Your task to perform on an android device: Clear the cart on bestbuy.com. Add razer thresher to the cart on bestbuy.com, then select checkout. Image 0: 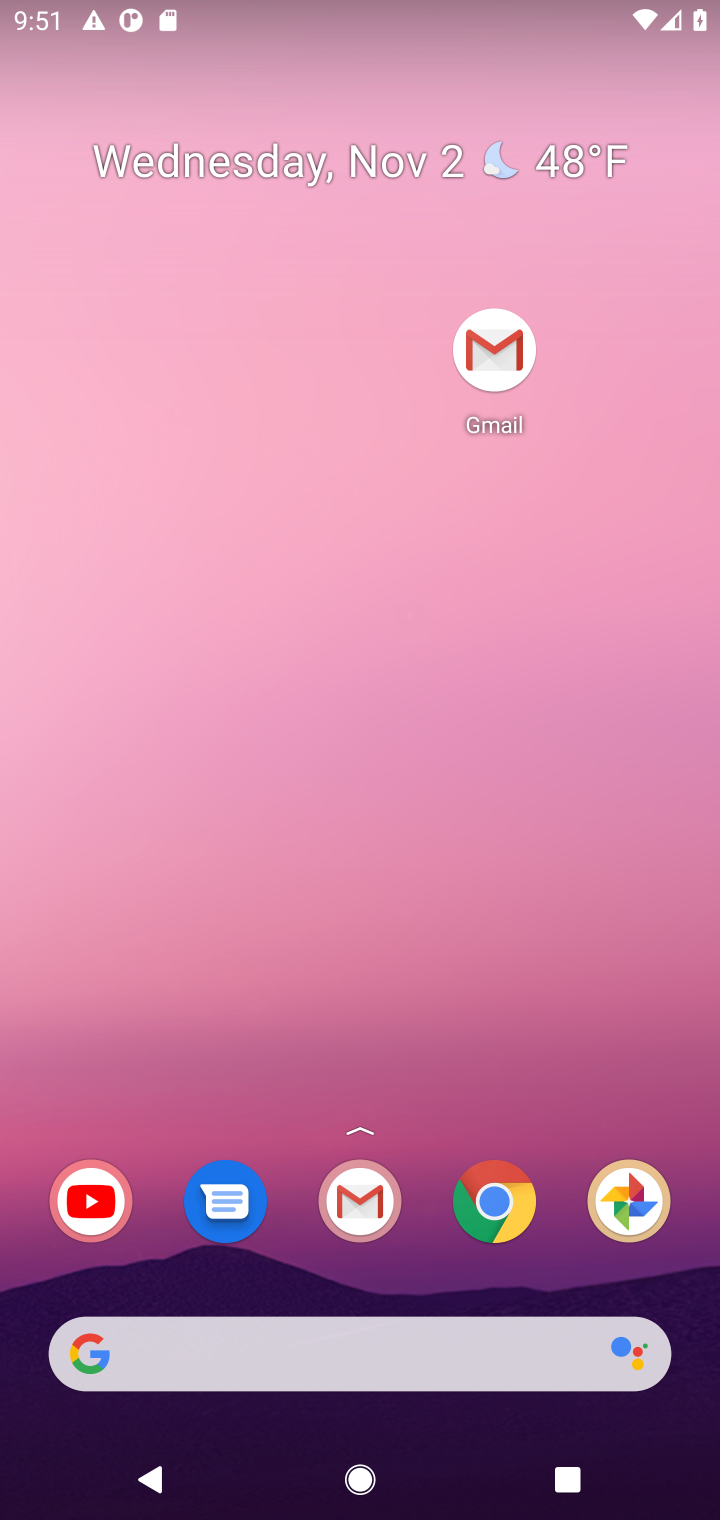
Step 0: drag from (436, 1249) to (461, 168)
Your task to perform on an android device: Clear the cart on bestbuy.com. Add razer thresher to the cart on bestbuy.com, then select checkout. Image 1: 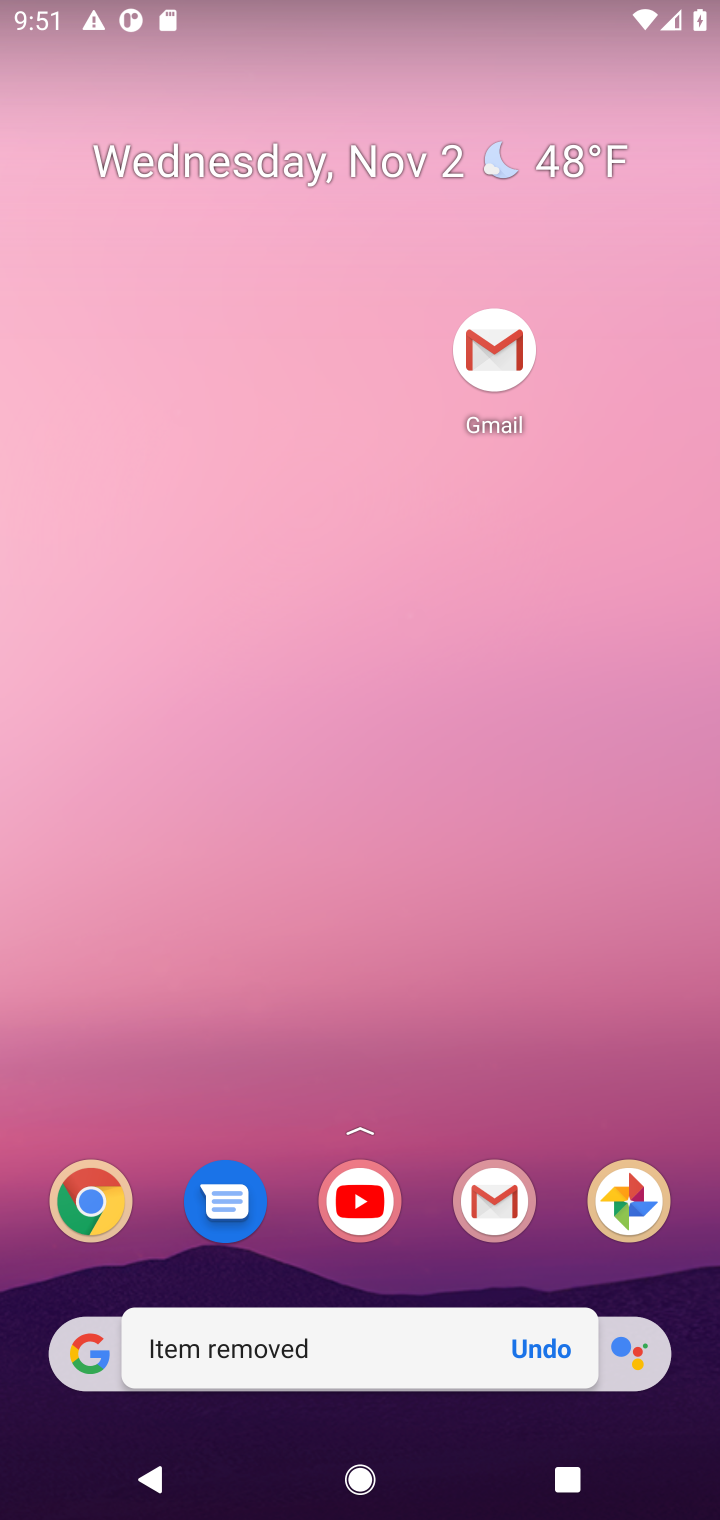
Step 1: drag from (418, 1195) to (326, 223)
Your task to perform on an android device: Clear the cart on bestbuy.com. Add razer thresher to the cart on bestbuy.com, then select checkout. Image 2: 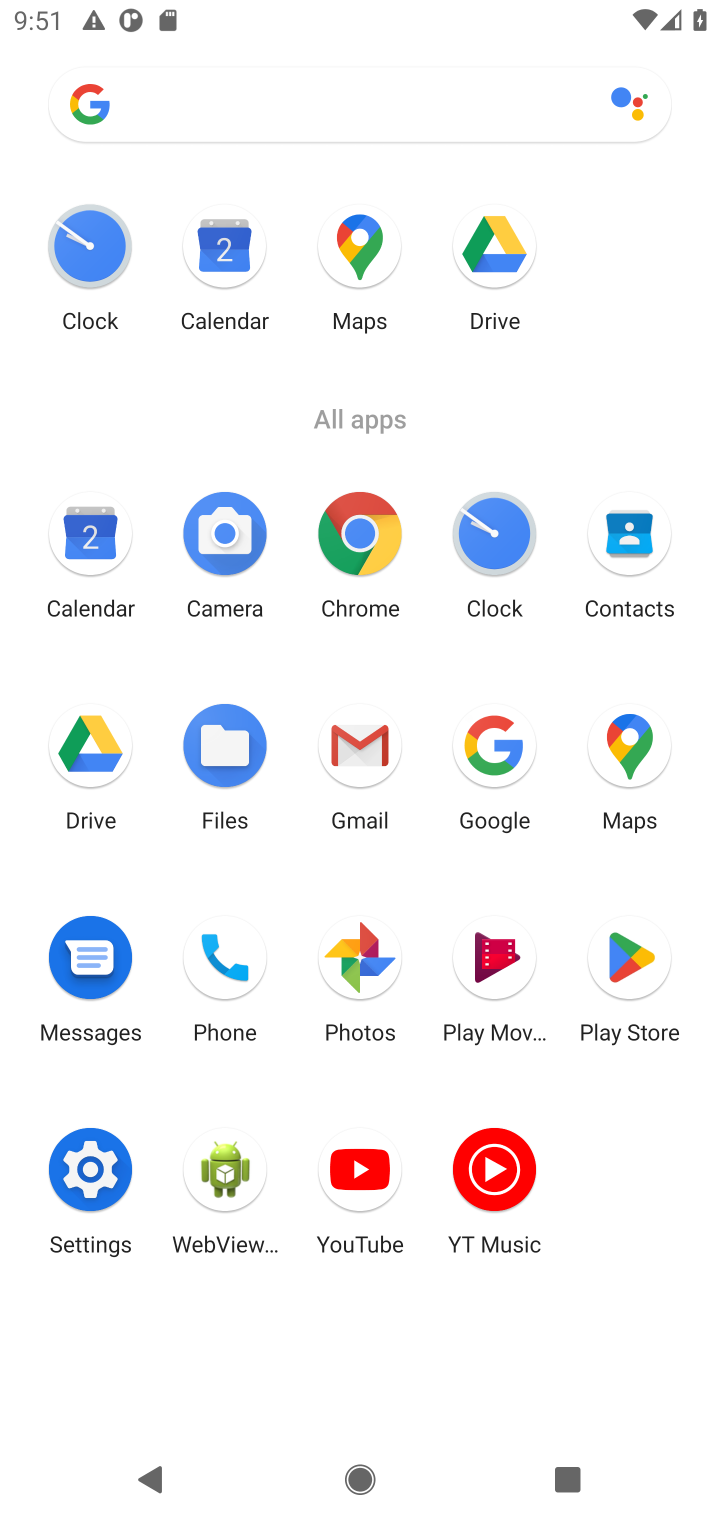
Step 2: click (361, 546)
Your task to perform on an android device: Clear the cart on bestbuy.com. Add razer thresher to the cart on bestbuy.com, then select checkout. Image 3: 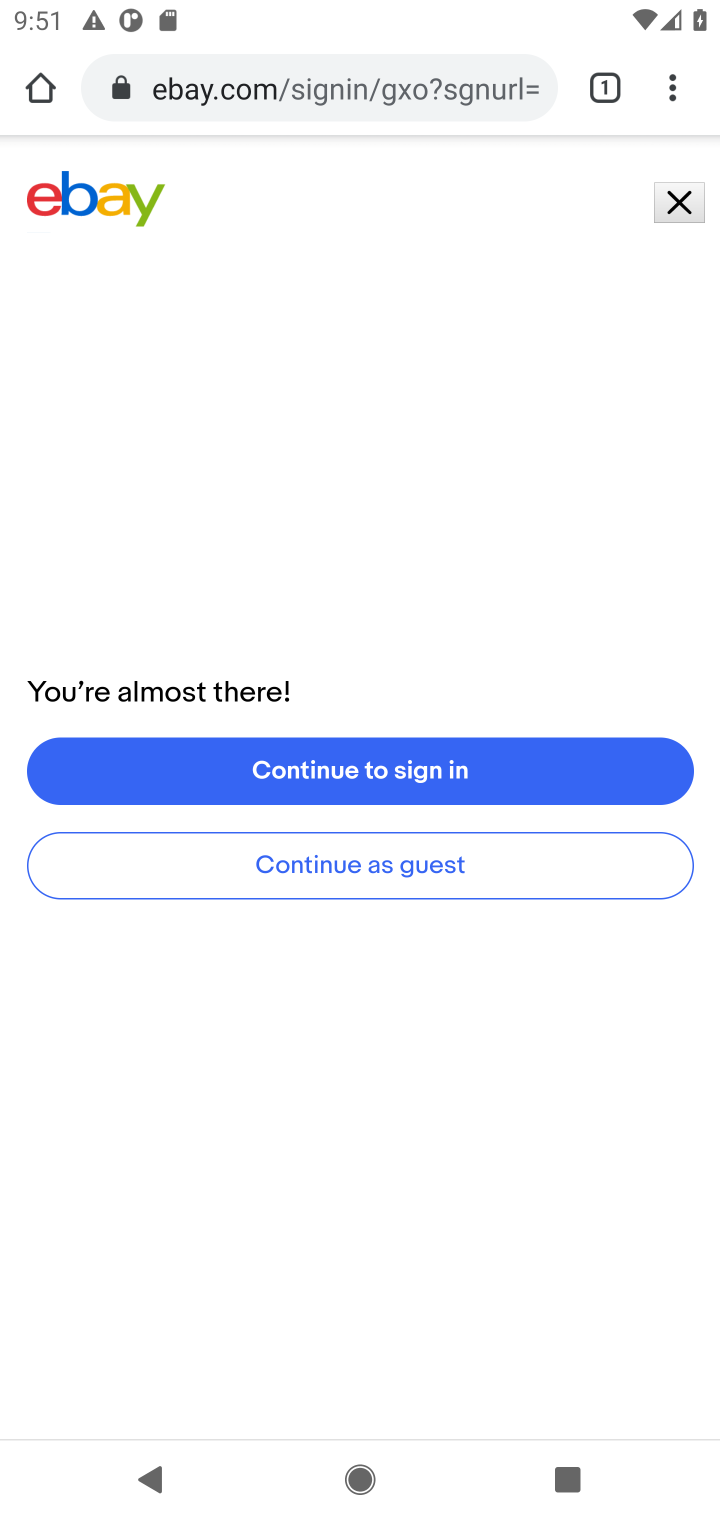
Step 3: click (290, 88)
Your task to perform on an android device: Clear the cart on bestbuy.com. Add razer thresher to the cart on bestbuy.com, then select checkout. Image 4: 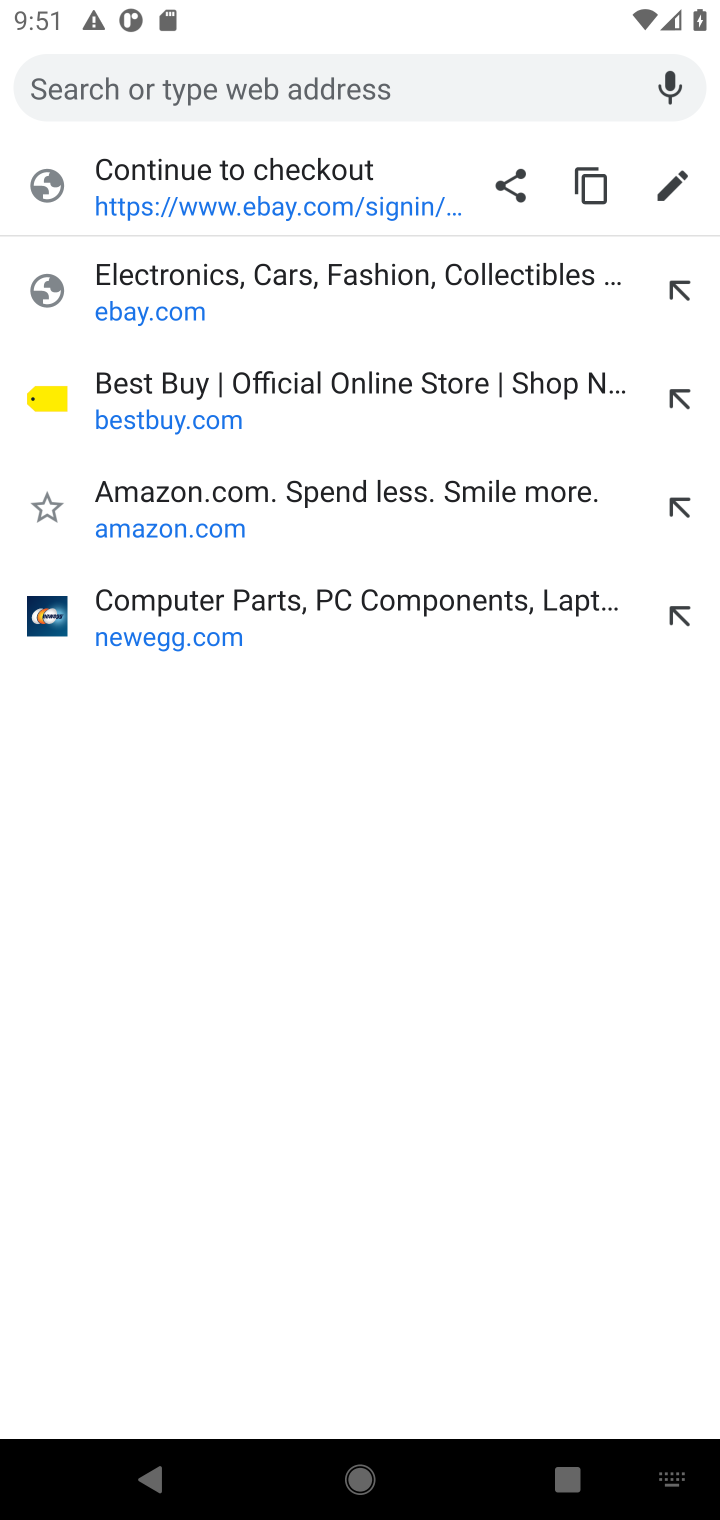
Step 4: type "bestbuy.com"
Your task to perform on an android device: Clear the cart on bestbuy.com. Add razer thresher to the cart on bestbuy.com, then select checkout. Image 5: 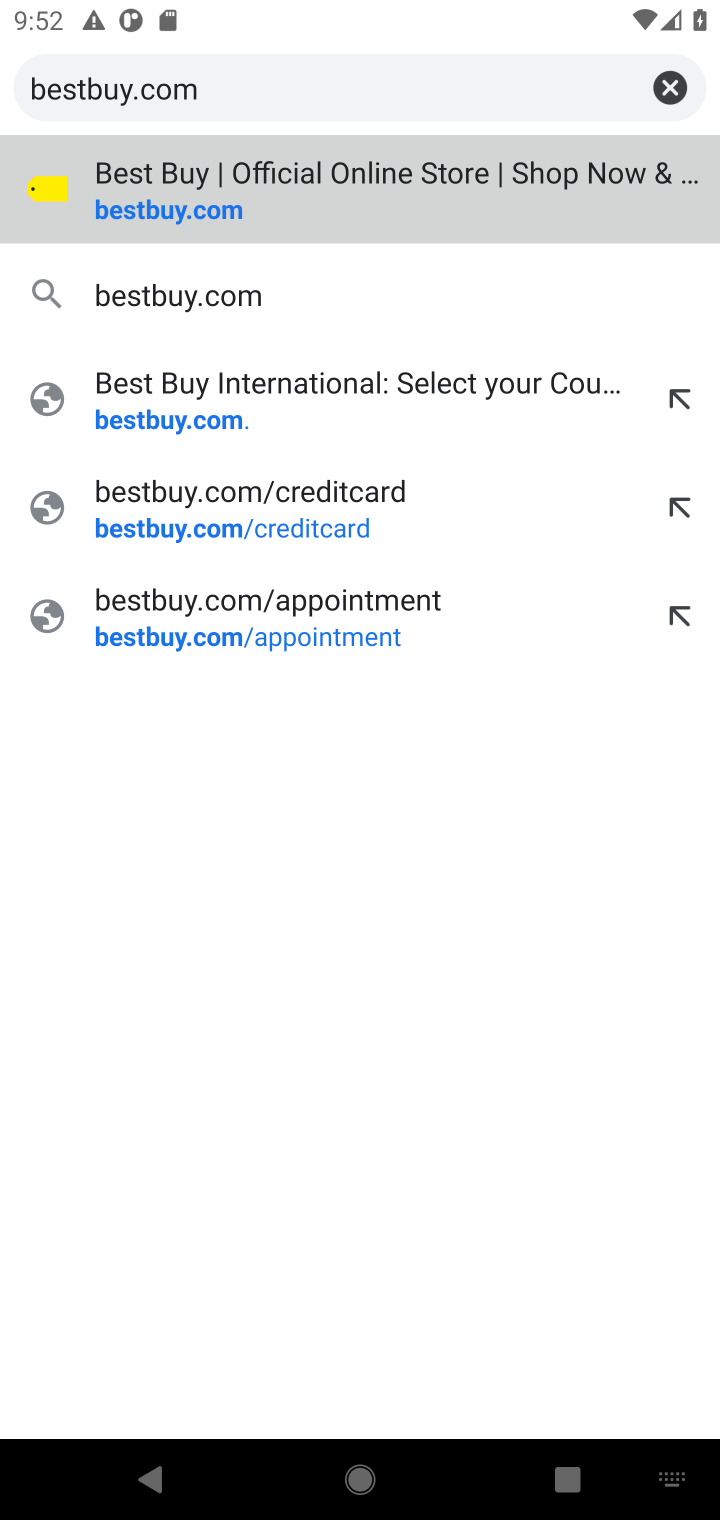
Step 5: press enter
Your task to perform on an android device: Clear the cart on bestbuy.com. Add razer thresher to the cart on bestbuy.com, then select checkout. Image 6: 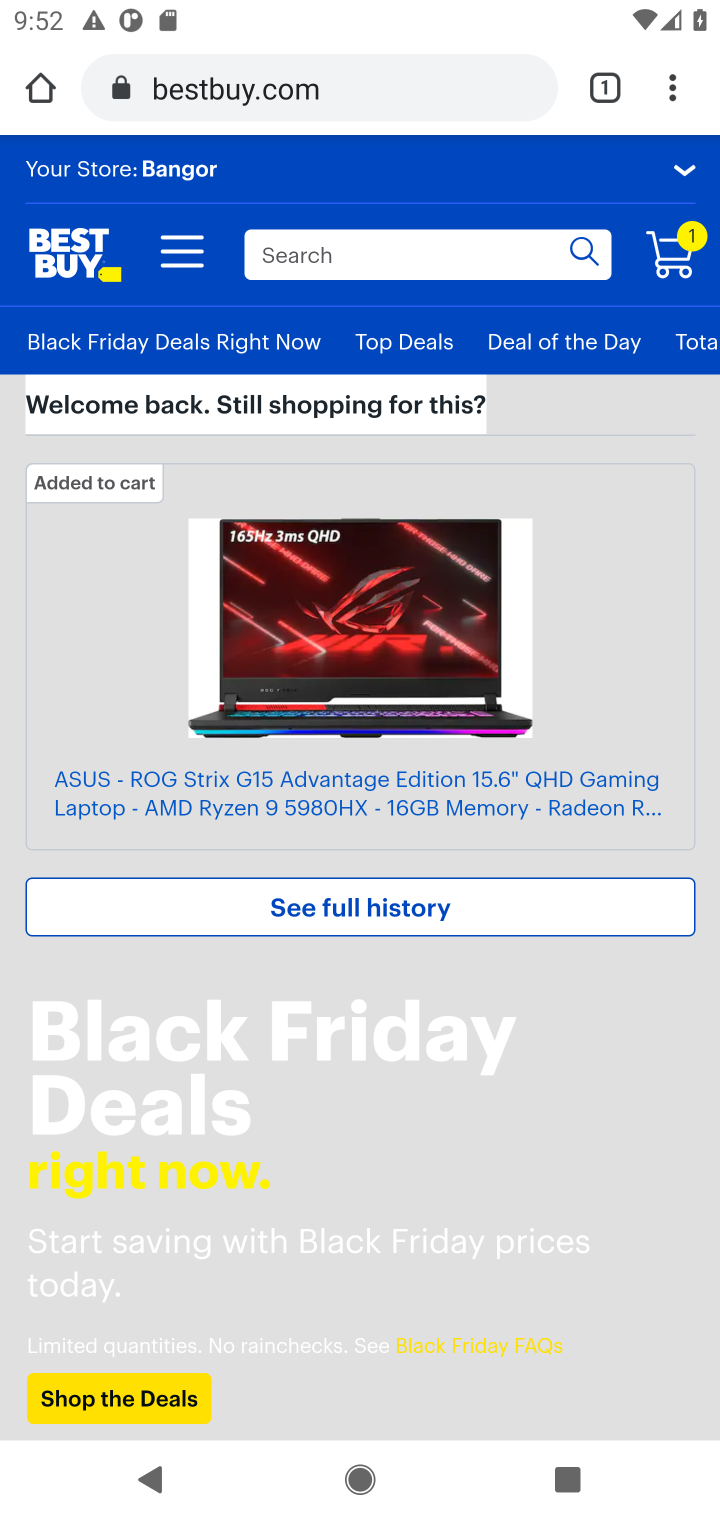
Step 6: click (520, 246)
Your task to perform on an android device: Clear the cart on bestbuy.com. Add razer thresher to the cart on bestbuy.com, then select checkout. Image 7: 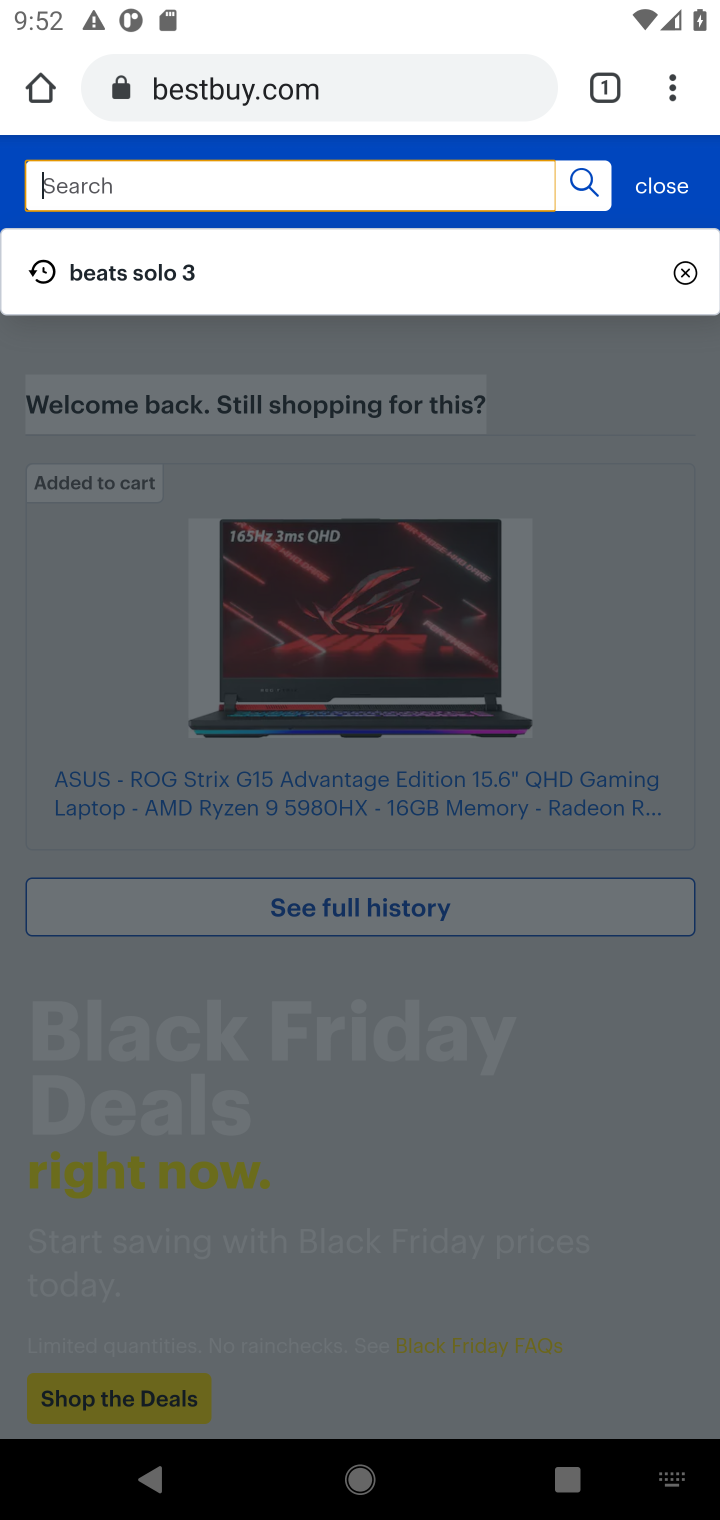
Step 7: click (696, 184)
Your task to perform on an android device: Clear the cart on bestbuy.com. Add razer thresher to the cart on bestbuy.com, then select checkout. Image 8: 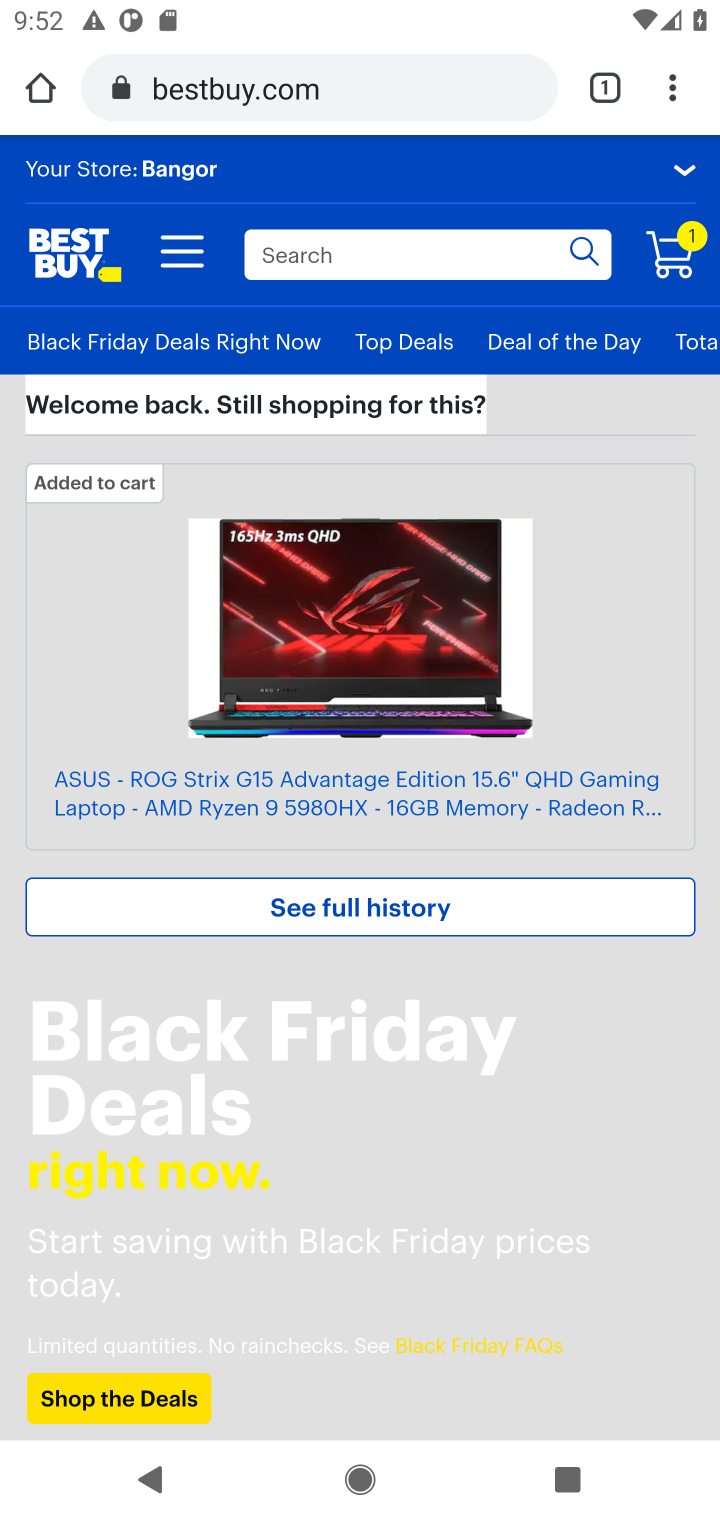
Step 8: click (672, 249)
Your task to perform on an android device: Clear the cart on bestbuy.com. Add razer thresher to the cart on bestbuy.com, then select checkout. Image 9: 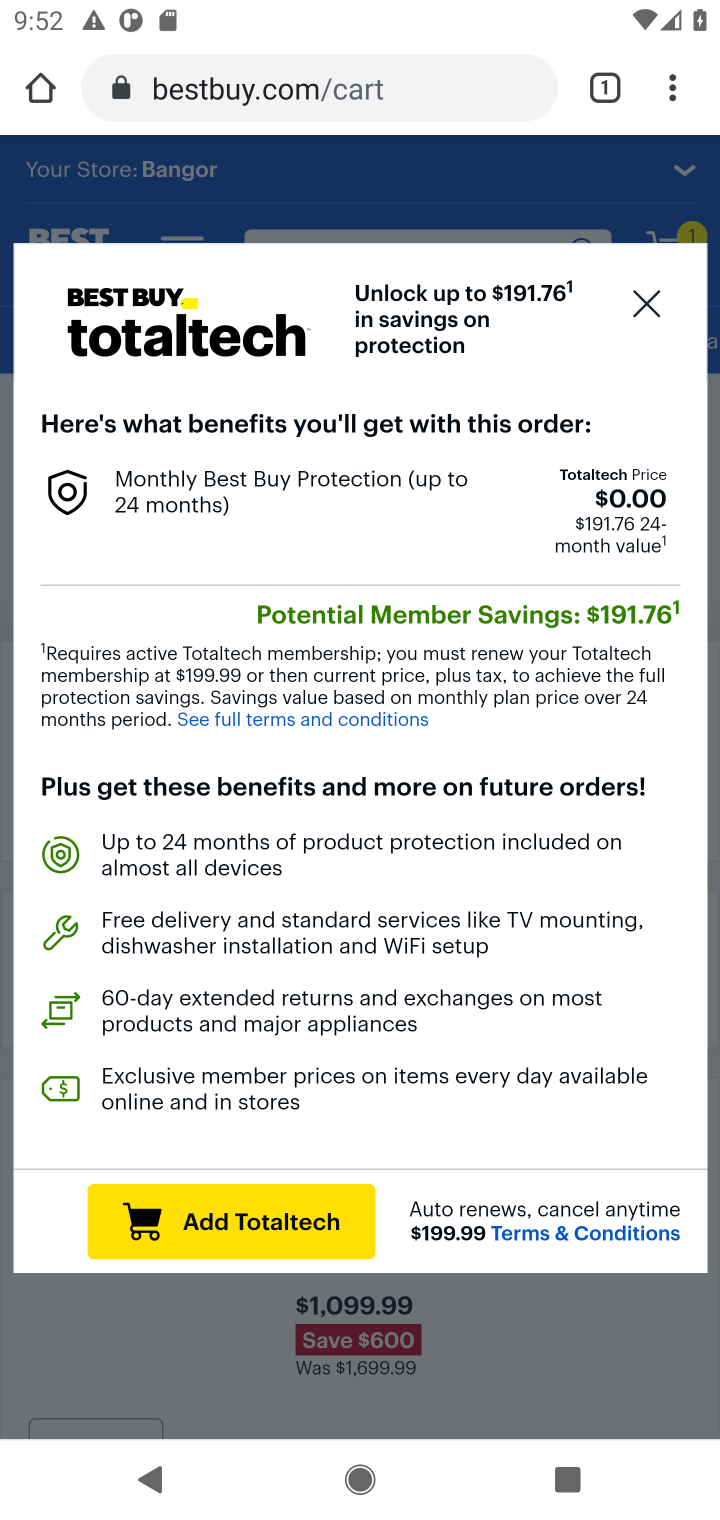
Step 9: click (647, 290)
Your task to perform on an android device: Clear the cart on bestbuy.com. Add razer thresher to the cart on bestbuy.com, then select checkout. Image 10: 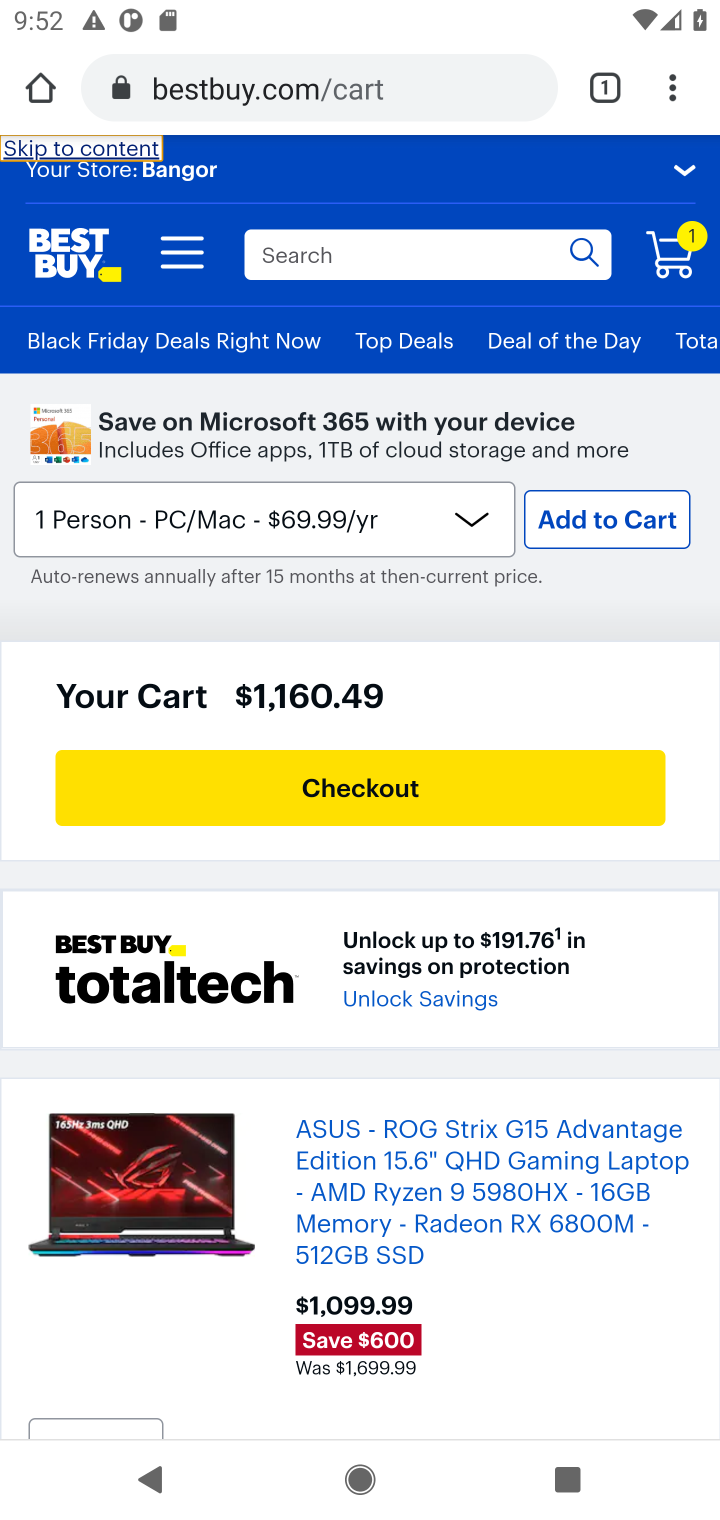
Step 10: drag from (449, 1064) to (416, 347)
Your task to perform on an android device: Clear the cart on bestbuy.com. Add razer thresher to the cart on bestbuy.com, then select checkout. Image 11: 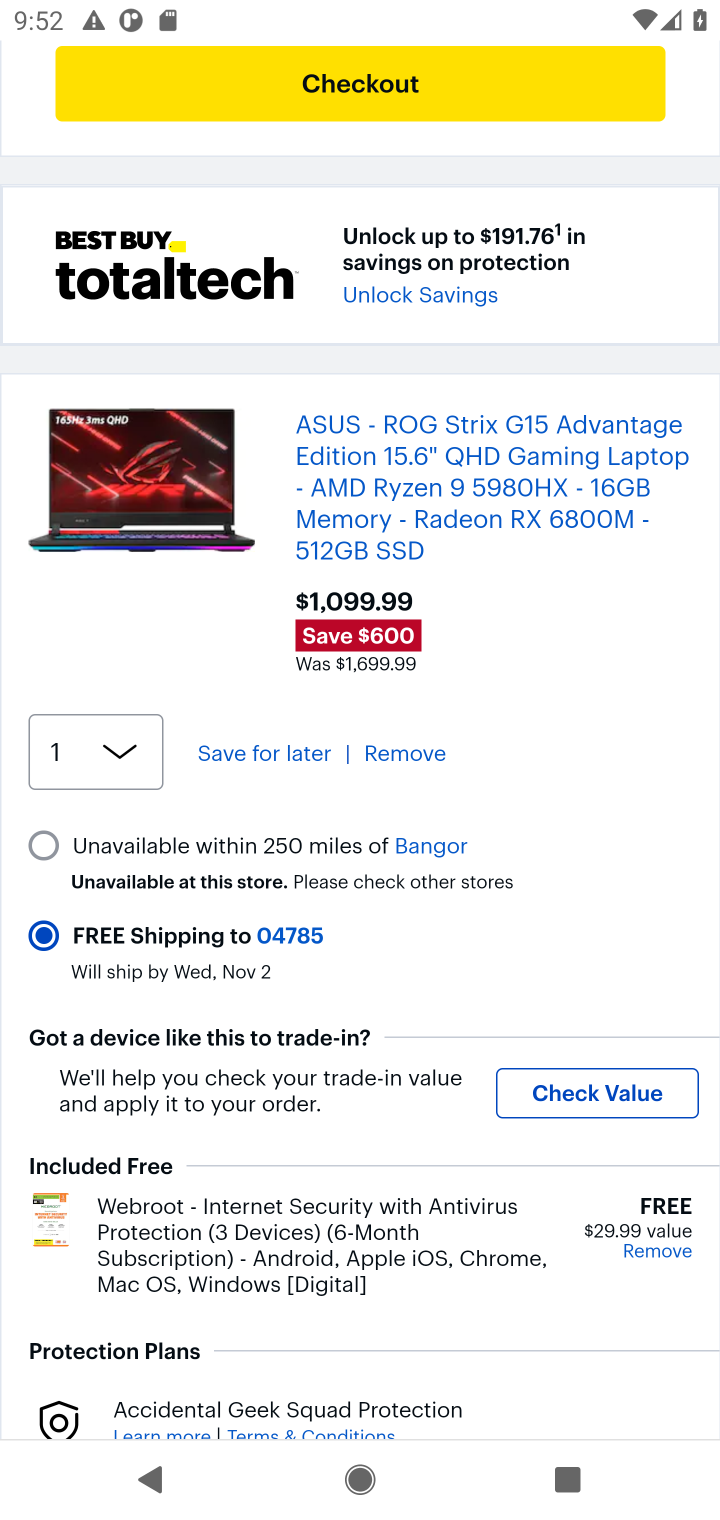
Step 11: click (415, 743)
Your task to perform on an android device: Clear the cart on bestbuy.com. Add razer thresher to the cart on bestbuy.com, then select checkout. Image 12: 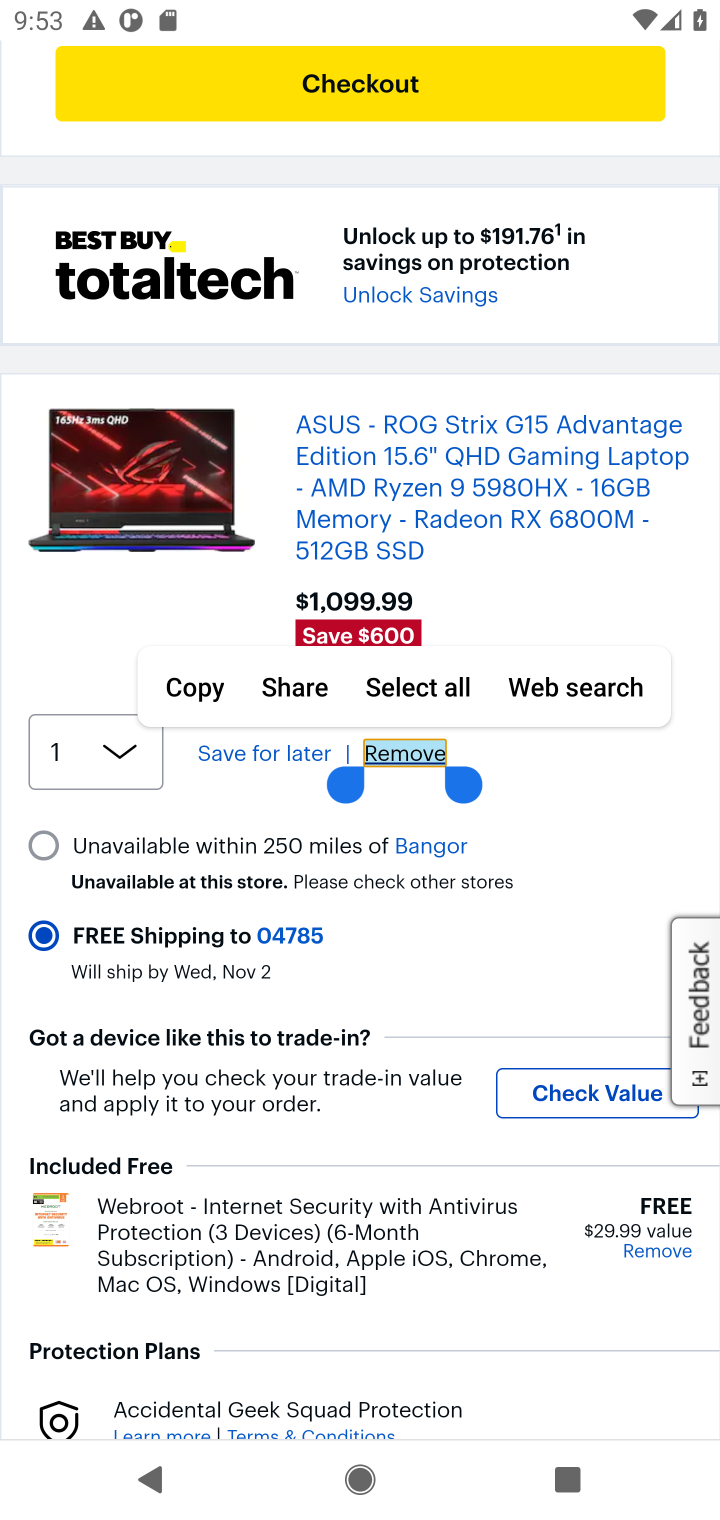
Step 12: click (406, 748)
Your task to perform on an android device: Clear the cart on bestbuy.com. Add razer thresher to the cart on bestbuy.com, then select checkout. Image 13: 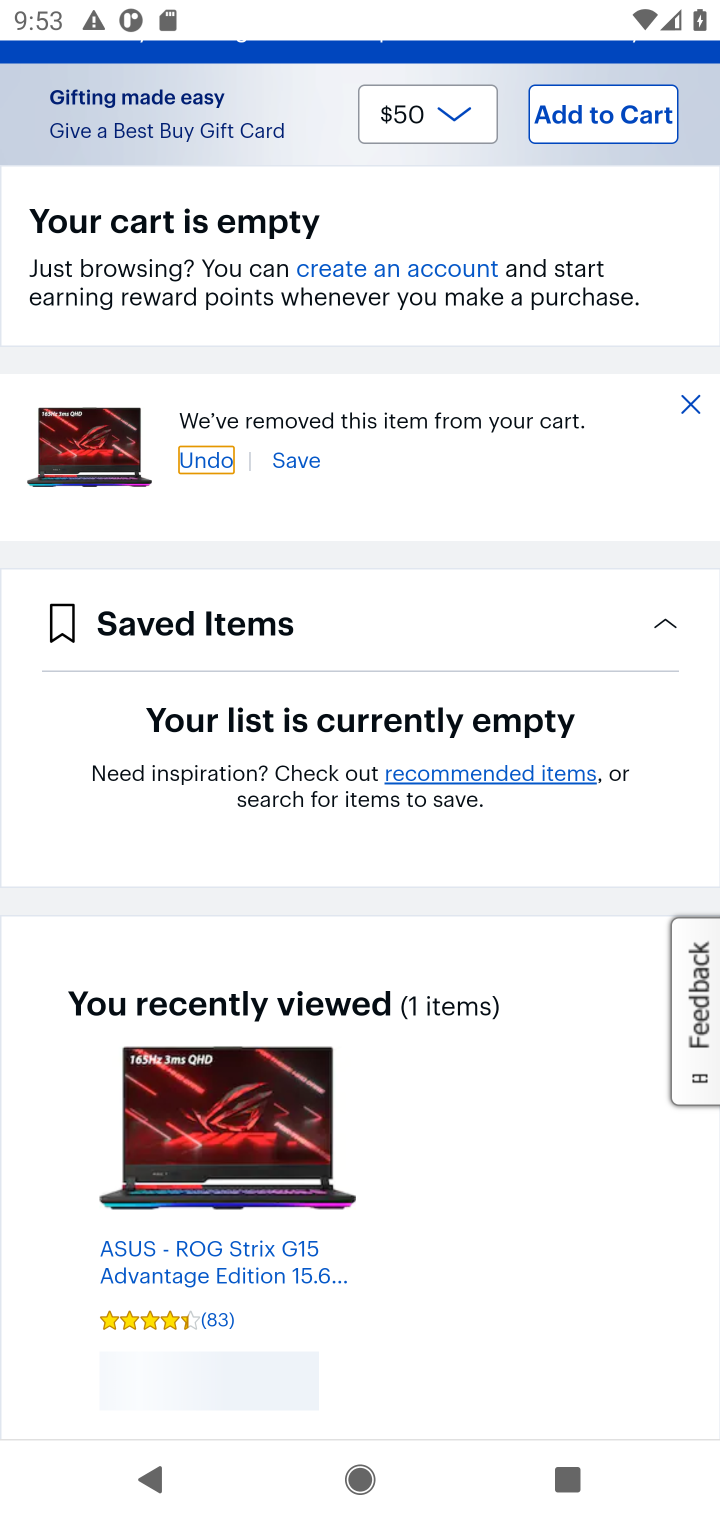
Step 13: drag from (525, 293) to (591, 1201)
Your task to perform on an android device: Clear the cart on bestbuy.com. Add razer thresher to the cart on bestbuy.com, then select checkout. Image 14: 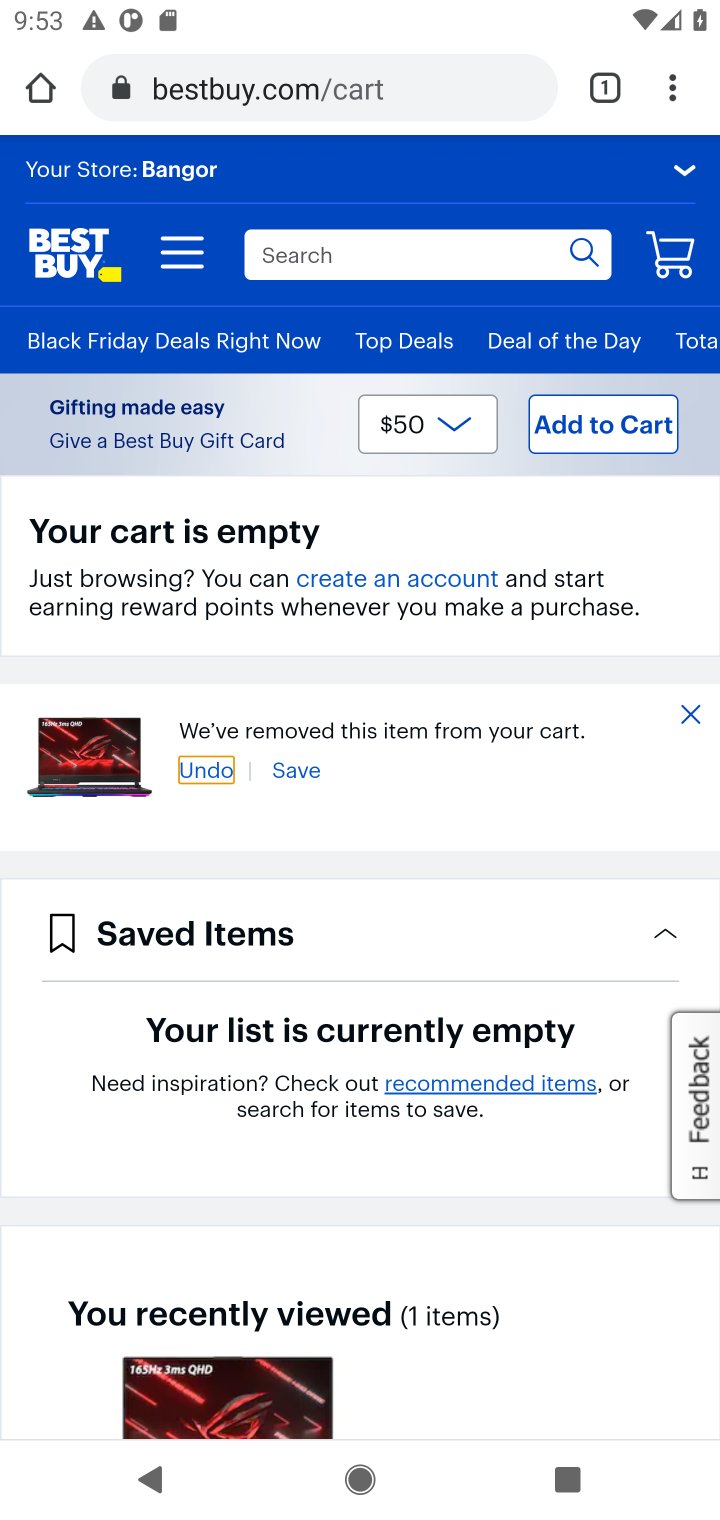
Step 14: click (448, 257)
Your task to perform on an android device: Clear the cart on bestbuy.com. Add razer thresher to the cart on bestbuy.com, then select checkout. Image 15: 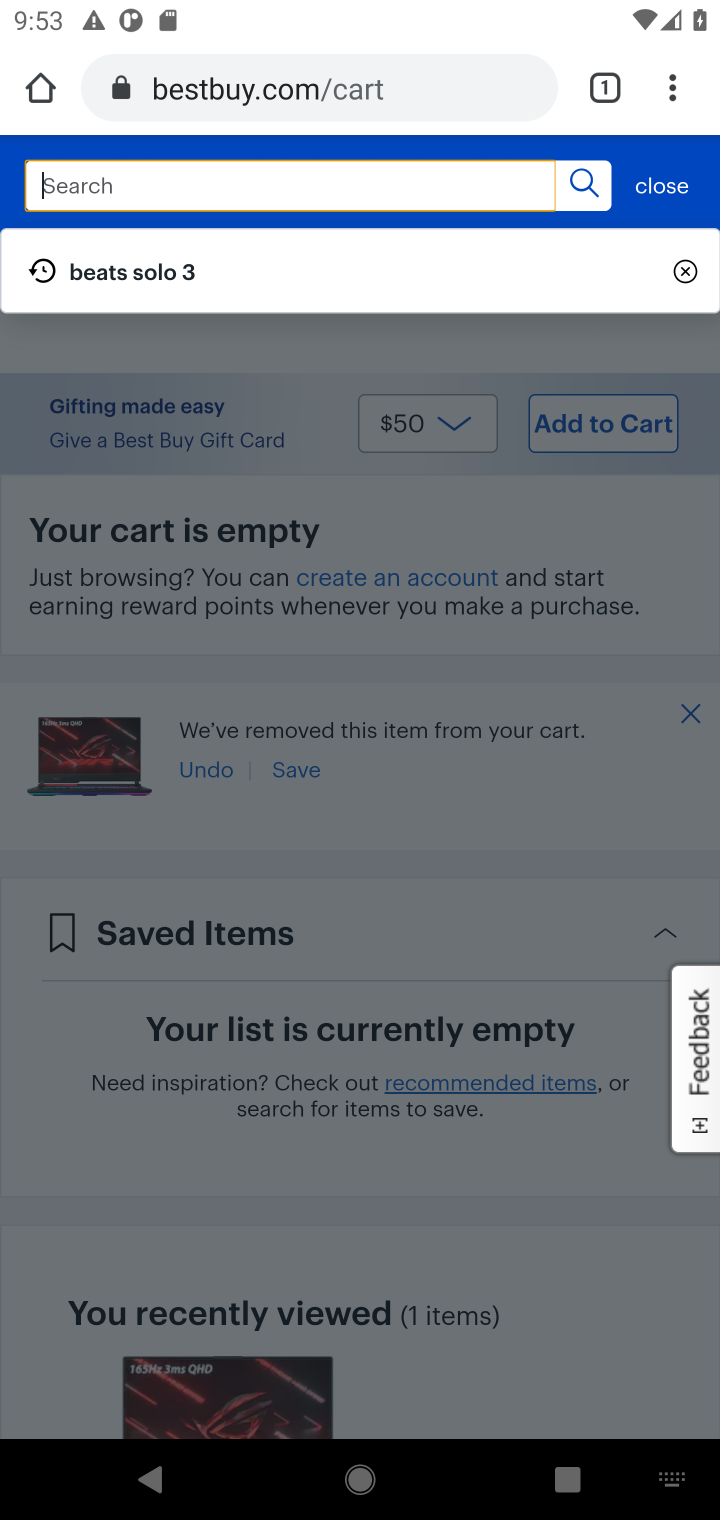
Step 15: type "razer thresher"
Your task to perform on an android device: Clear the cart on bestbuy.com. Add razer thresher to the cart on bestbuy.com, then select checkout. Image 16: 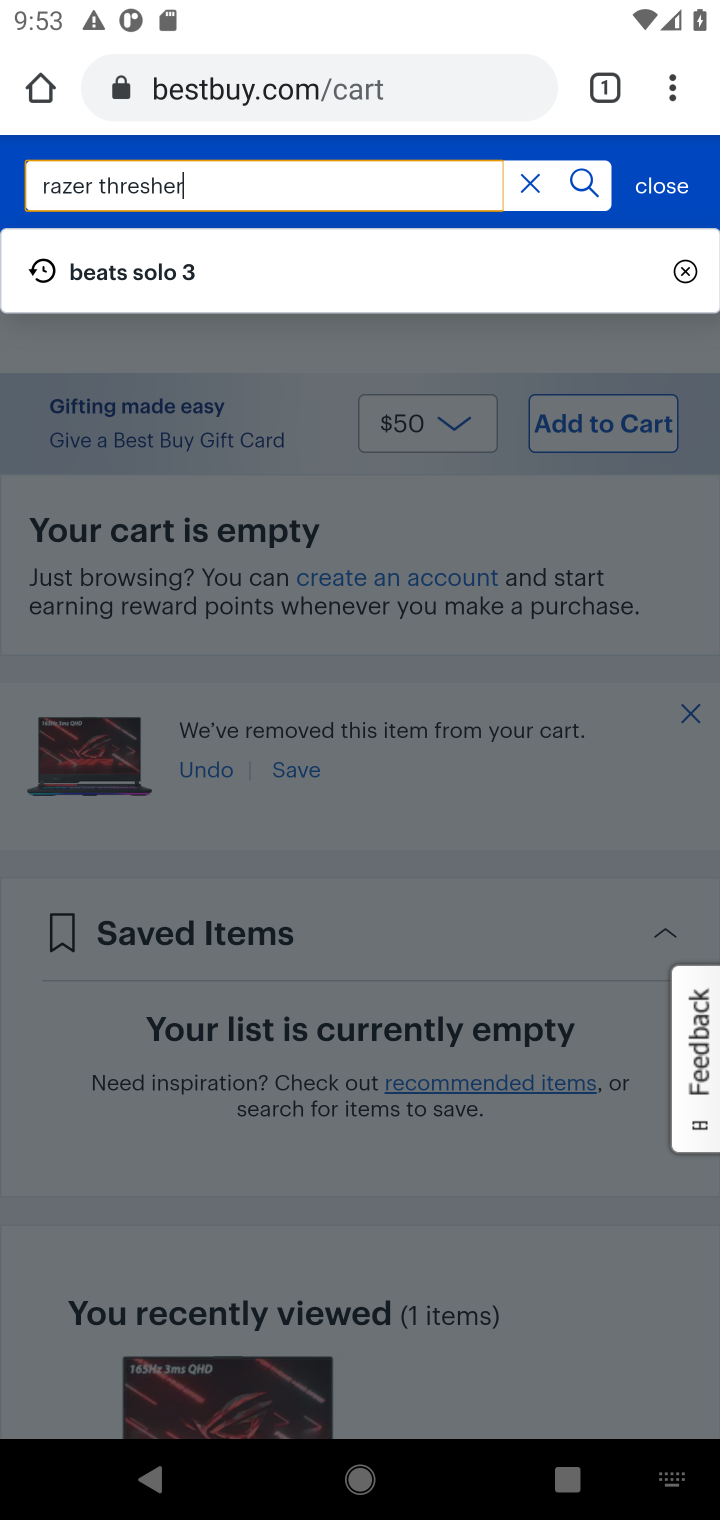
Step 16: press enter
Your task to perform on an android device: Clear the cart on bestbuy.com. Add razer thresher to the cart on bestbuy.com, then select checkout. Image 17: 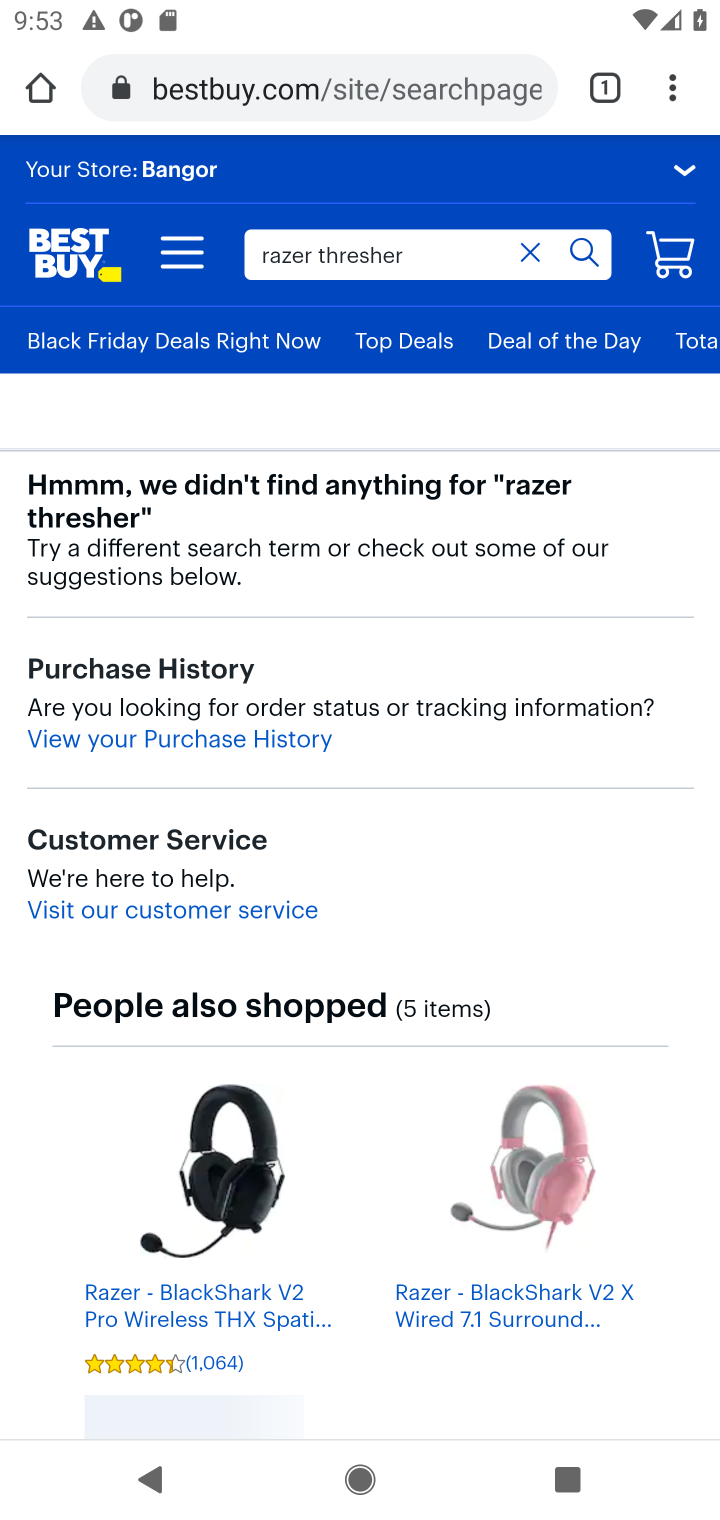
Step 17: task complete